Your task to perform on an android device: empty trash in the gmail app Image 0: 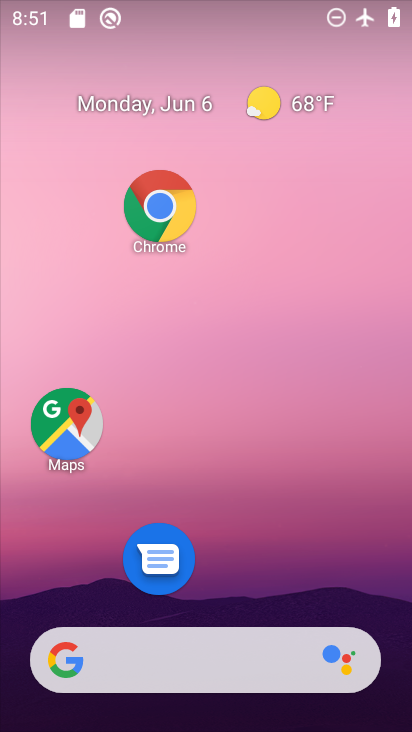
Step 0: drag from (258, 696) to (218, 170)
Your task to perform on an android device: empty trash in the gmail app Image 1: 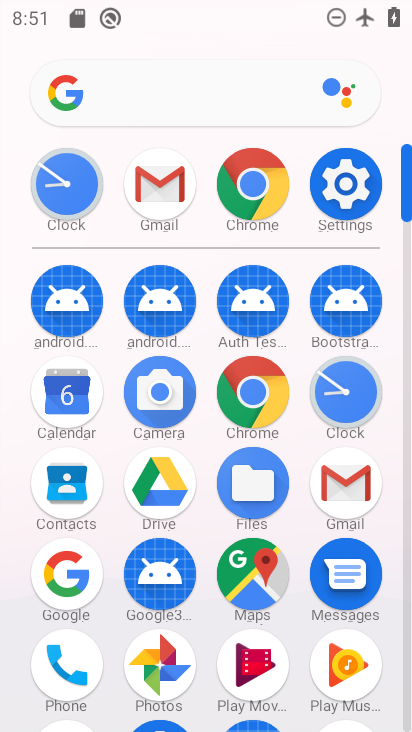
Step 1: click (335, 485)
Your task to perform on an android device: empty trash in the gmail app Image 2: 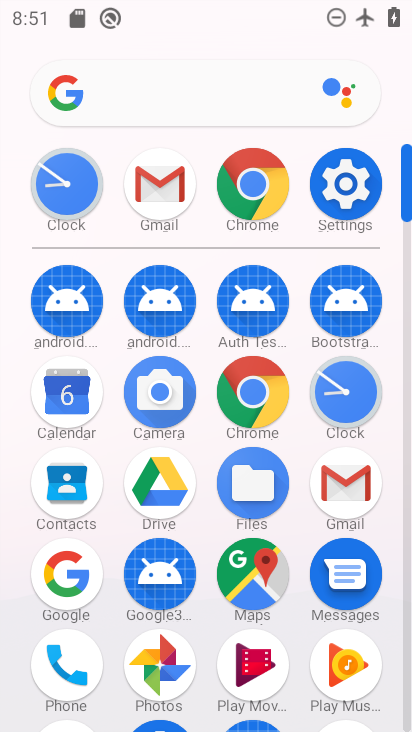
Step 2: click (336, 484)
Your task to perform on an android device: empty trash in the gmail app Image 3: 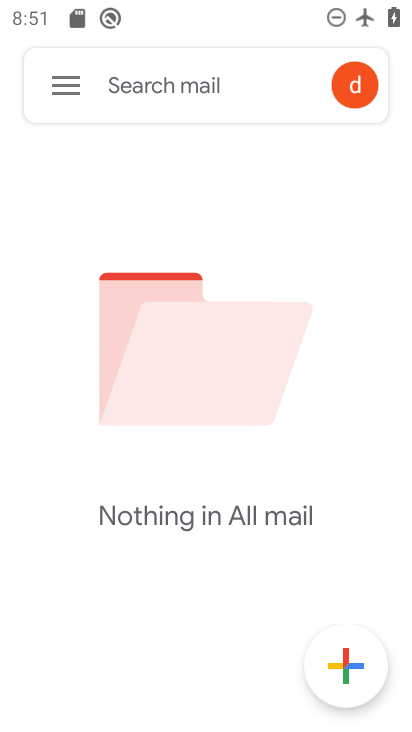
Step 3: click (72, 73)
Your task to perform on an android device: empty trash in the gmail app Image 4: 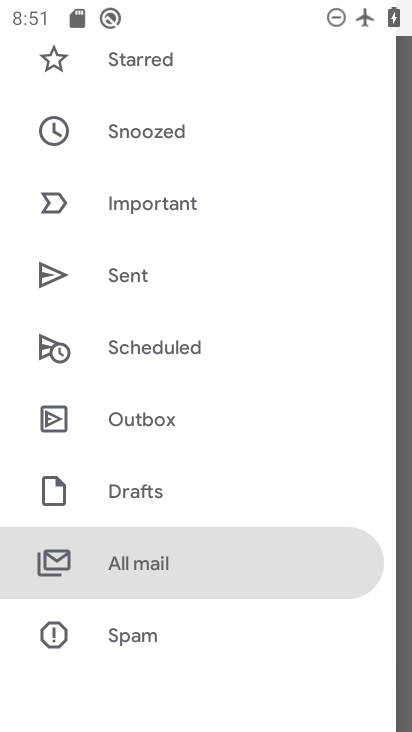
Step 4: drag from (132, 530) to (132, 161)
Your task to perform on an android device: empty trash in the gmail app Image 5: 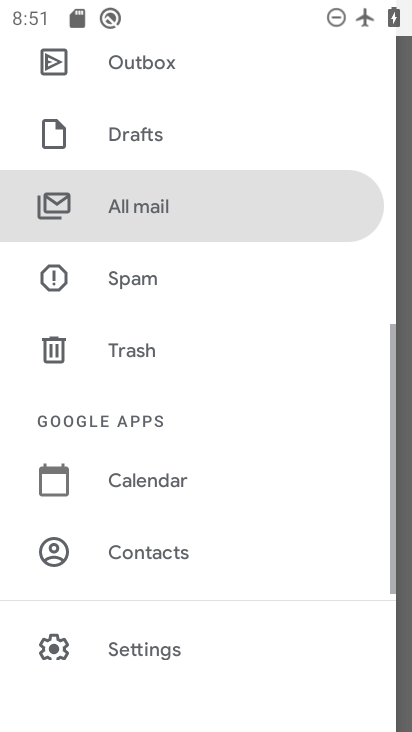
Step 5: drag from (174, 618) to (186, 136)
Your task to perform on an android device: empty trash in the gmail app Image 6: 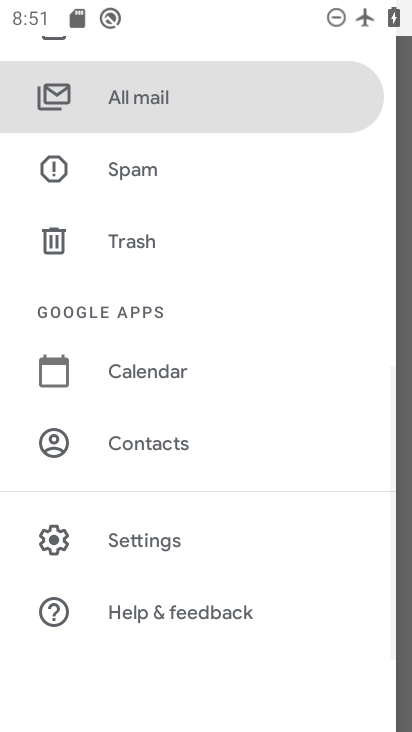
Step 6: click (147, 237)
Your task to perform on an android device: empty trash in the gmail app Image 7: 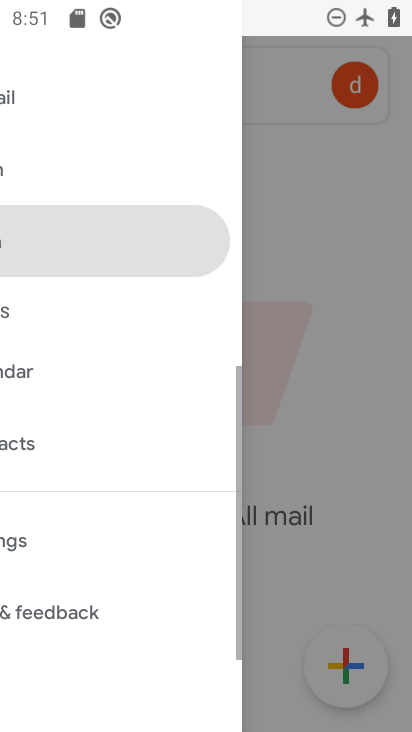
Step 7: click (146, 241)
Your task to perform on an android device: empty trash in the gmail app Image 8: 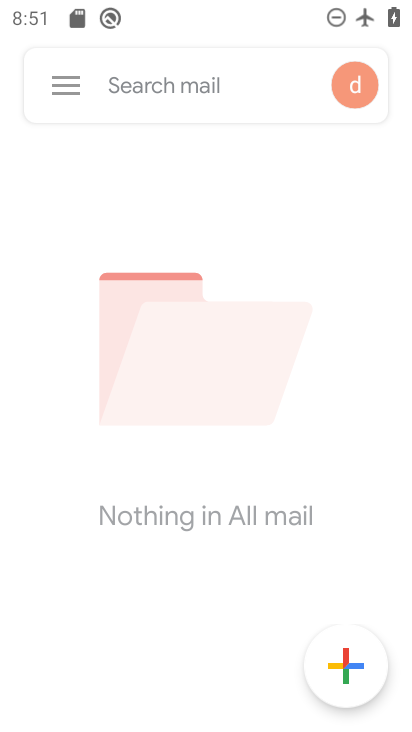
Step 8: click (145, 240)
Your task to perform on an android device: empty trash in the gmail app Image 9: 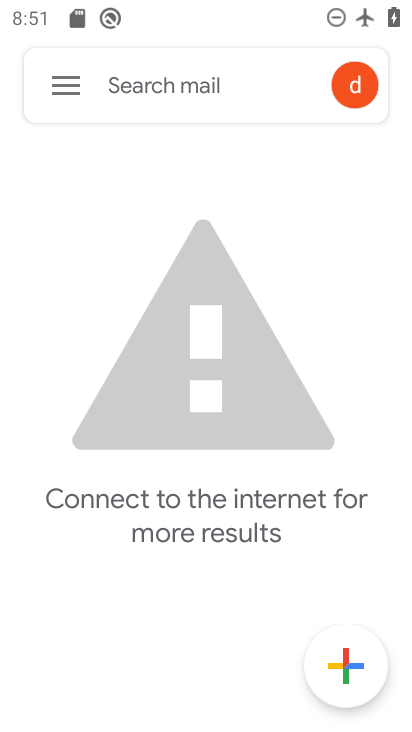
Step 9: task complete